Your task to perform on an android device: When is my next appointment? Image 0: 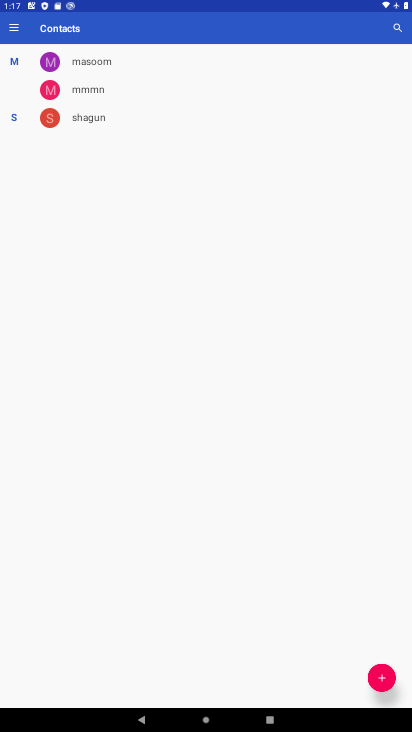
Step 0: press home button
Your task to perform on an android device: When is my next appointment? Image 1: 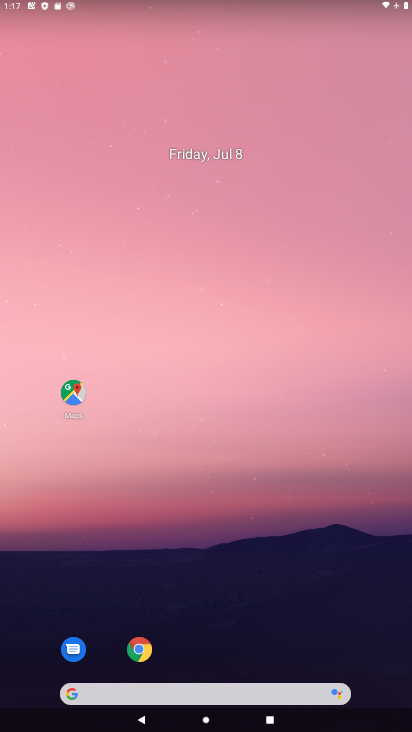
Step 1: drag from (31, 722) to (280, 74)
Your task to perform on an android device: When is my next appointment? Image 2: 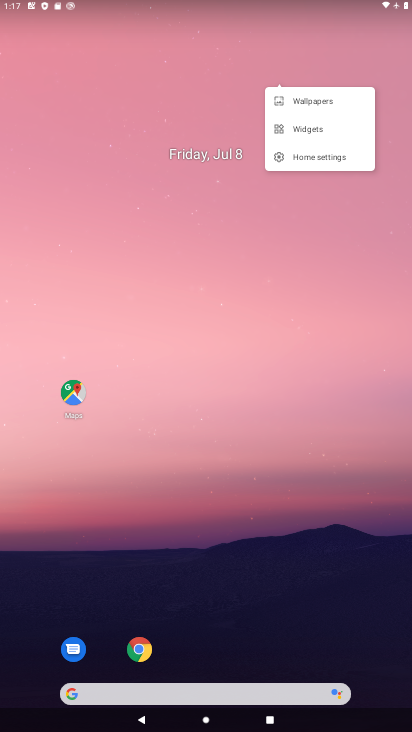
Step 2: drag from (40, 674) to (140, 176)
Your task to perform on an android device: When is my next appointment? Image 3: 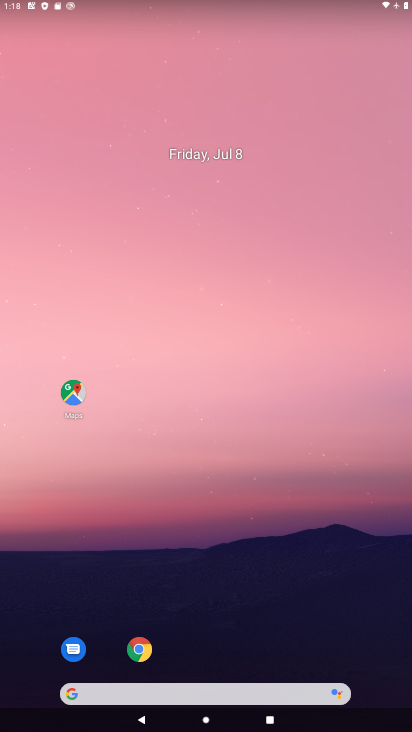
Step 3: drag from (36, 689) to (165, 40)
Your task to perform on an android device: When is my next appointment? Image 4: 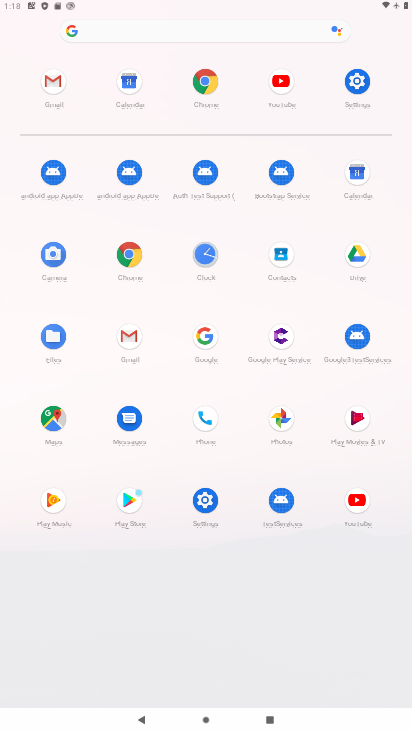
Step 4: click (361, 174)
Your task to perform on an android device: When is my next appointment? Image 5: 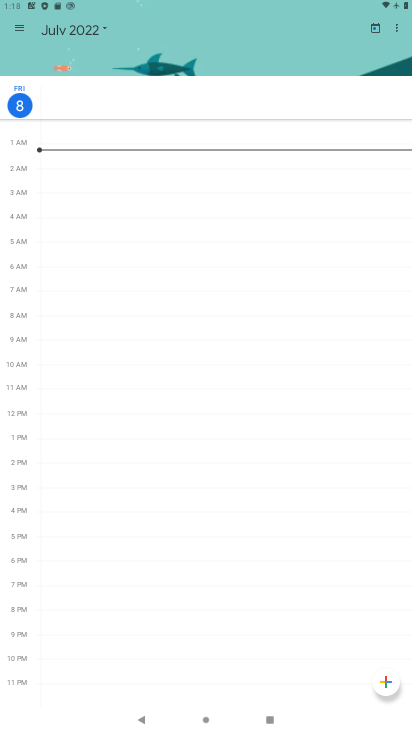
Step 5: click (15, 25)
Your task to perform on an android device: When is my next appointment? Image 6: 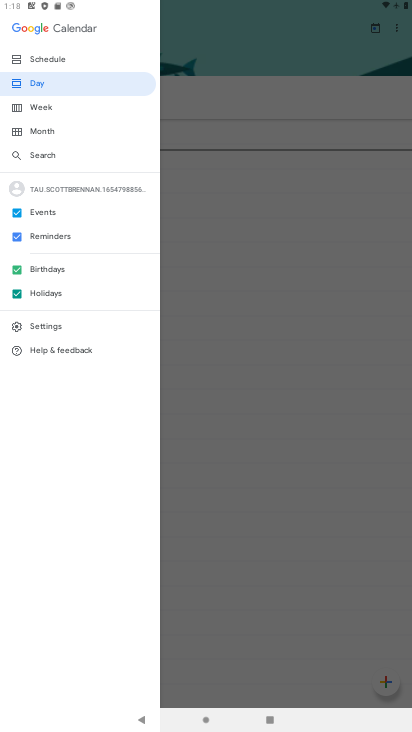
Step 6: click (46, 114)
Your task to perform on an android device: When is my next appointment? Image 7: 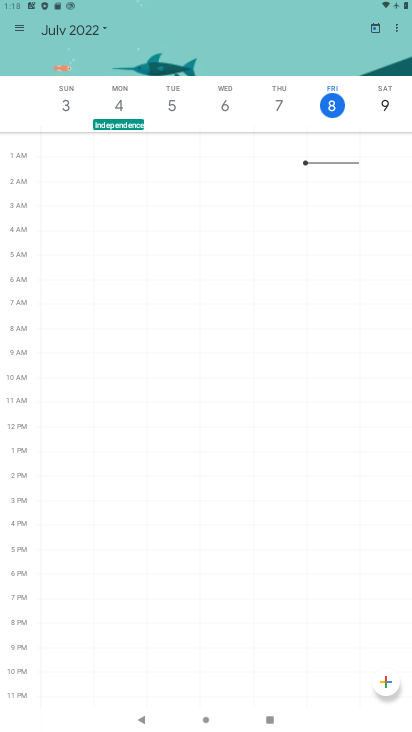
Step 7: task complete